Your task to perform on an android device: Open sound settings Image 0: 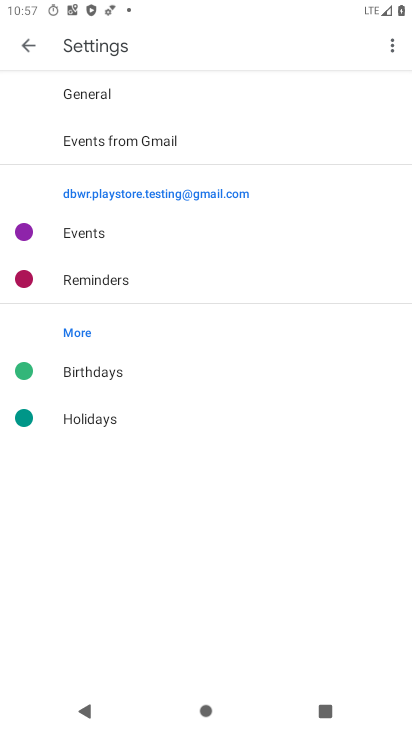
Step 0: drag from (195, 385) to (242, 595)
Your task to perform on an android device: Open sound settings Image 1: 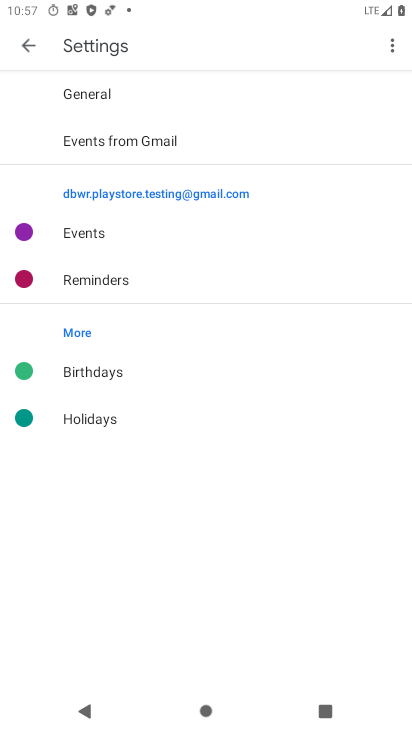
Step 1: press home button
Your task to perform on an android device: Open sound settings Image 2: 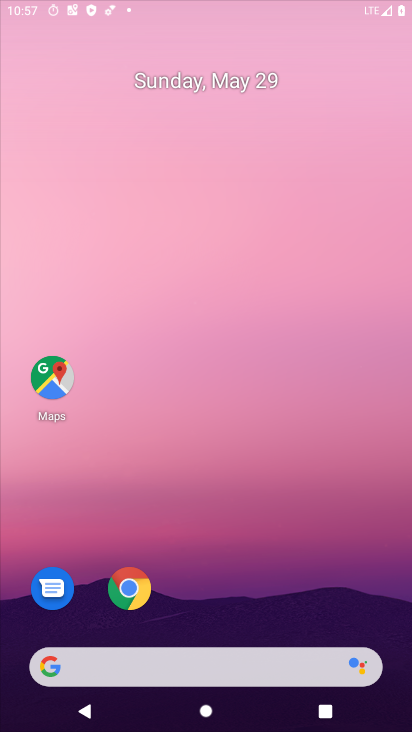
Step 2: drag from (263, 563) to (335, 92)
Your task to perform on an android device: Open sound settings Image 3: 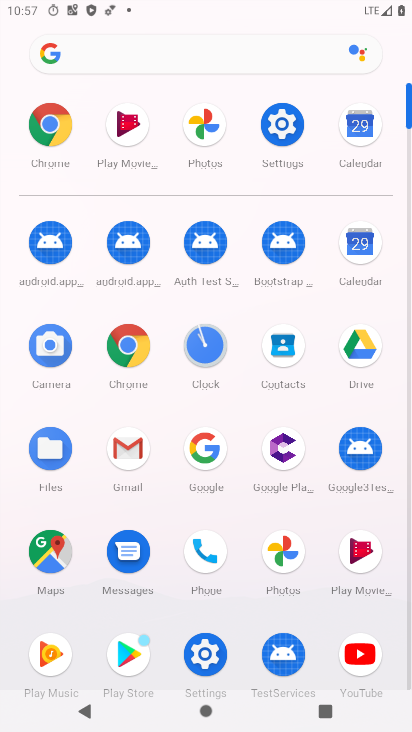
Step 3: click (207, 643)
Your task to perform on an android device: Open sound settings Image 4: 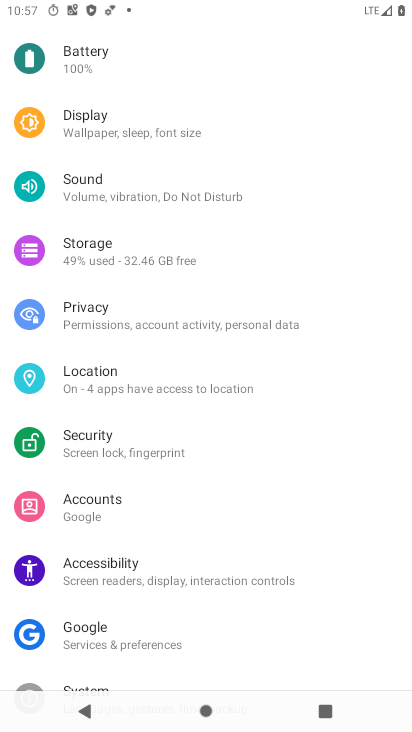
Step 4: click (179, 207)
Your task to perform on an android device: Open sound settings Image 5: 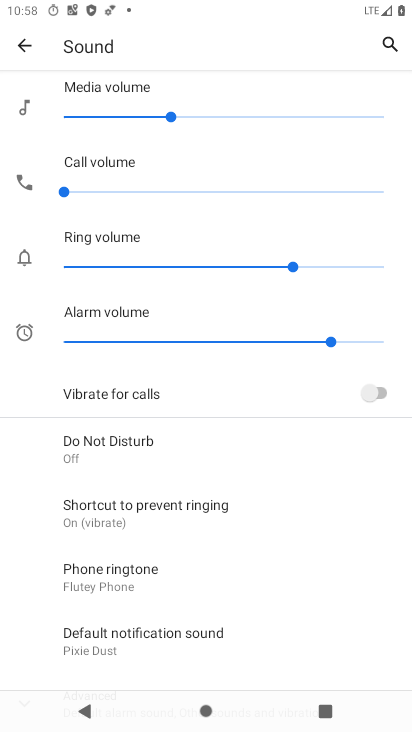
Step 5: task complete